Your task to perform on an android device: toggle wifi Image 0: 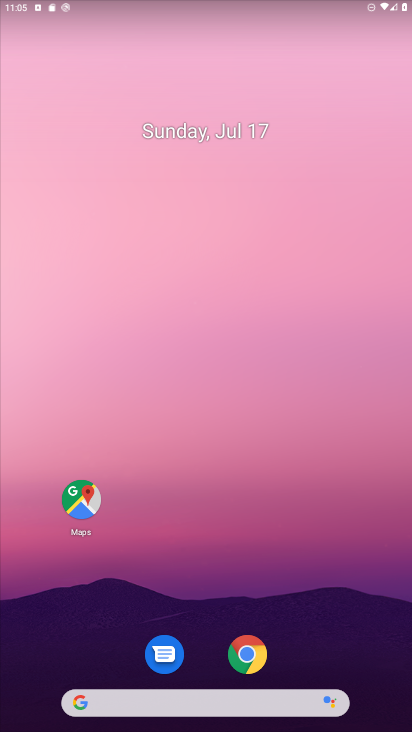
Step 0: drag from (214, 504) to (207, 40)
Your task to perform on an android device: toggle wifi Image 1: 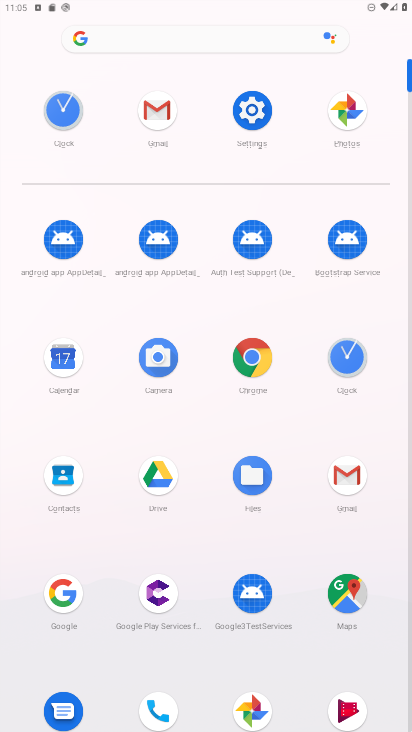
Step 1: click (236, 99)
Your task to perform on an android device: toggle wifi Image 2: 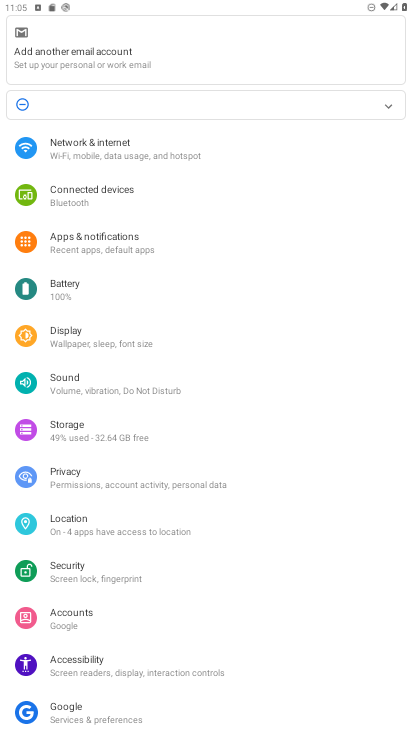
Step 2: click (145, 137)
Your task to perform on an android device: toggle wifi Image 3: 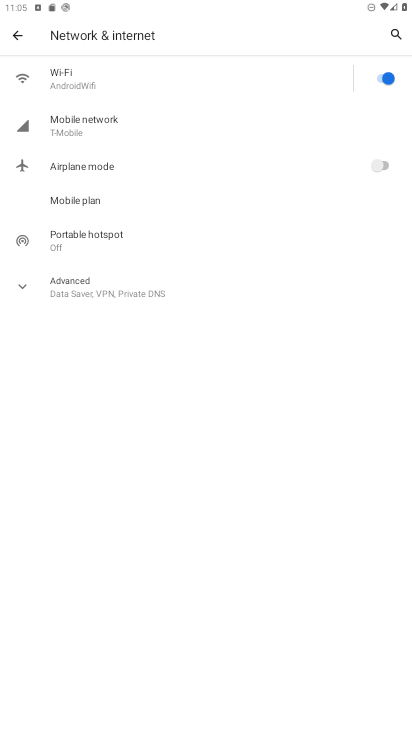
Step 3: click (377, 77)
Your task to perform on an android device: toggle wifi Image 4: 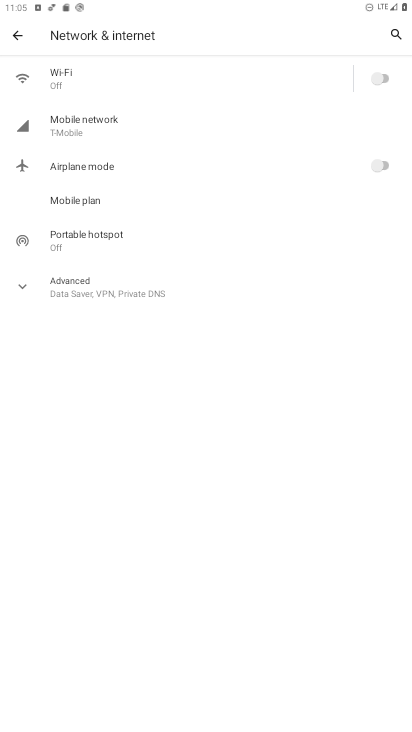
Step 4: task complete